Your task to perform on an android device: Empty the shopping cart on costco. Search for "macbook pro 13 inch" on costco, select the first entry, and add it to the cart. Image 0: 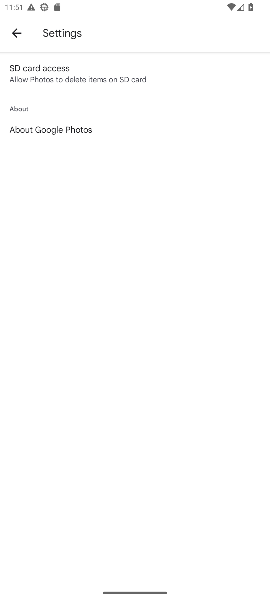
Step 0: press home button
Your task to perform on an android device: Empty the shopping cart on costco. Search for "macbook pro 13 inch" on costco, select the first entry, and add it to the cart. Image 1: 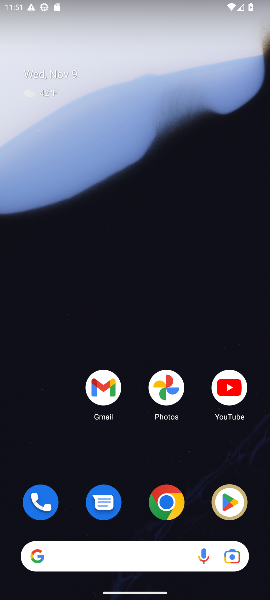
Step 1: drag from (146, 423) to (130, 45)
Your task to perform on an android device: Empty the shopping cart on costco. Search for "macbook pro 13 inch" on costco, select the first entry, and add it to the cart. Image 2: 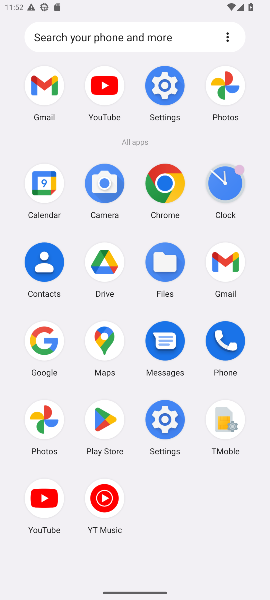
Step 2: click (161, 186)
Your task to perform on an android device: Empty the shopping cart on costco. Search for "macbook pro 13 inch" on costco, select the first entry, and add it to the cart. Image 3: 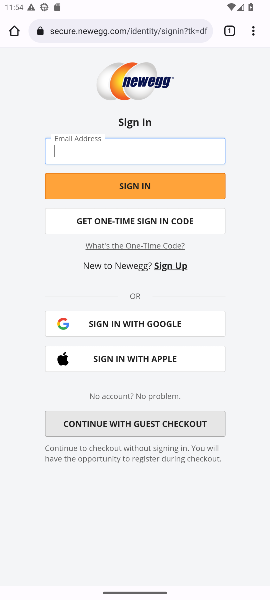
Step 3: click (149, 30)
Your task to perform on an android device: Empty the shopping cart on costco. Search for "macbook pro 13 inch" on costco, select the first entry, and add it to the cart. Image 4: 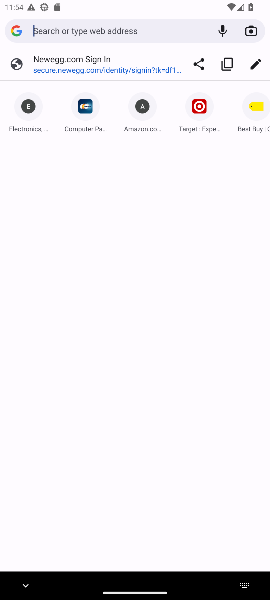
Step 4: type "costco.com"
Your task to perform on an android device: Empty the shopping cart on costco. Search for "macbook pro 13 inch" on costco, select the first entry, and add it to the cart. Image 5: 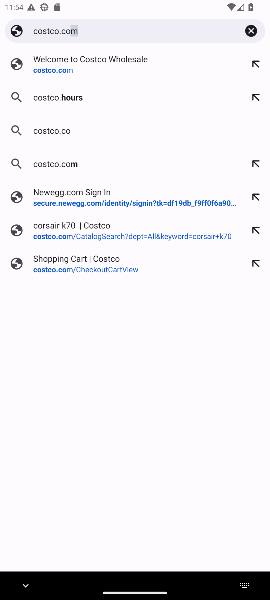
Step 5: press enter
Your task to perform on an android device: Empty the shopping cart on costco. Search for "macbook pro 13 inch" on costco, select the first entry, and add it to the cart. Image 6: 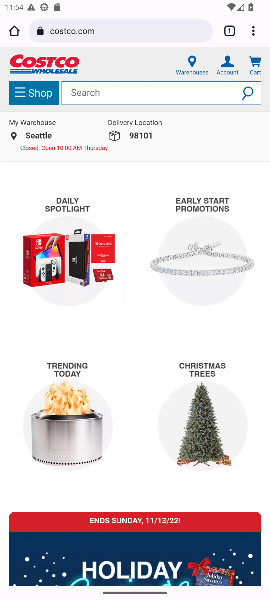
Step 6: click (249, 63)
Your task to perform on an android device: Empty the shopping cart on costco. Search for "macbook pro 13 inch" on costco, select the first entry, and add it to the cart. Image 7: 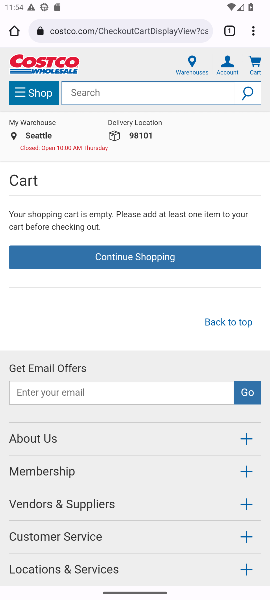
Step 7: click (151, 87)
Your task to perform on an android device: Empty the shopping cart on costco. Search for "macbook pro 13 inch" on costco, select the first entry, and add it to the cart. Image 8: 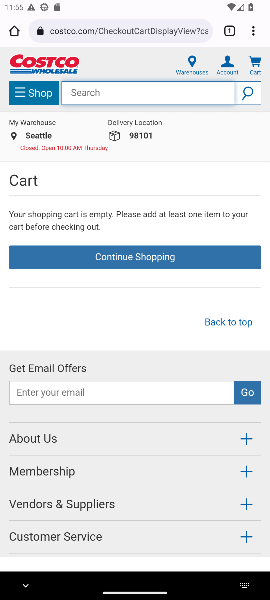
Step 8: type "macbook pro 13 inch"
Your task to perform on an android device: Empty the shopping cart on costco. Search for "macbook pro 13 inch" on costco, select the first entry, and add it to the cart. Image 9: 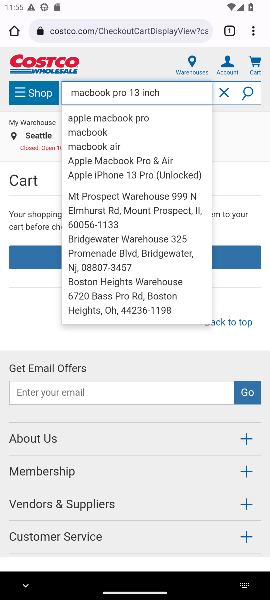
Step 9: press enter
Your task to perform on an android device: Empty the shopping cart on costco. Search for "macbook pro 13 inch" on costco, select the first entry, and add it to the cart. Image 10: 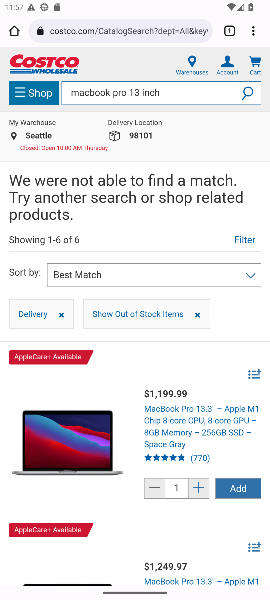
Step 10: drag from (117, 473) to (128, 233)
Your task to perform on an android device: Empty the shopping cart on costco. Search for "macbook pro 13 inch" on costco, select the first entry, and add it to the cart. Image 11: 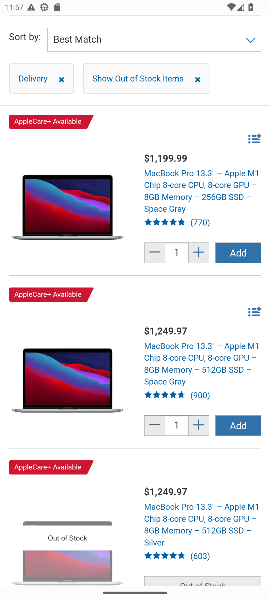
Step 11: drag from (105, 504) to (117, 183)
Your task to perform on an android device: Empty the shopping cart on costco. Search for "macbook pro 13 inch" on costco, select the first entry, and add it to the cart. Image 12: 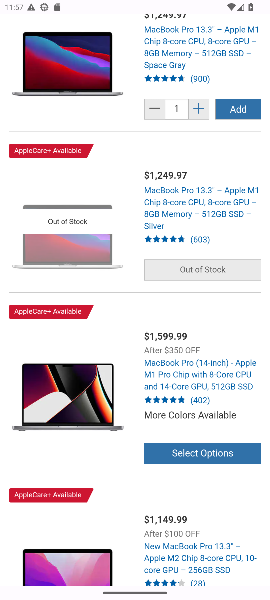
Step 12: drag from (77, 508) to (68, 226)
Your task to perform on an android device: Empty the shopping cart on costco. Search for "macbook pro 13 inch" on costco, select the first entry, and add it to the cart. Image 13: 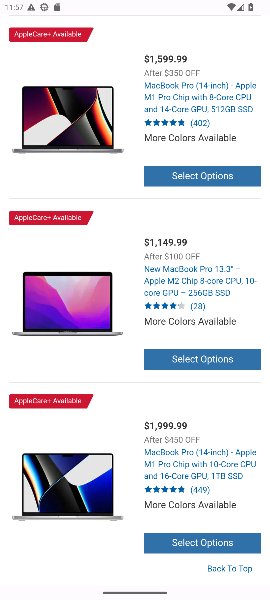
Step 13: drag from (69, 510) to (71, 185)
Your task to perform on an android device: Empty the shopping cart on costco. Search for "macbook pro 13 inch" on costco, select the first entry, and add it to the cart. Image 14: 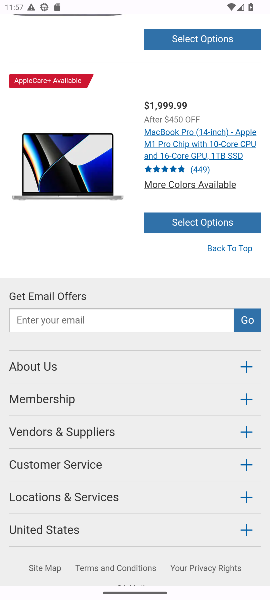
Step 14: drag from (125, 210) to (112, 563)
Your task to perform on an android device: Empty the shopping cart on costco. Search for "macbook pro 13 inch" on costco, select the first entry, and add it to the cart. Image 15: 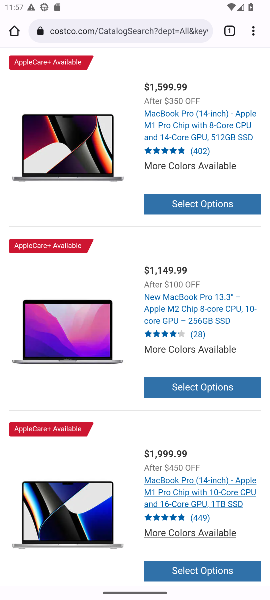
Step 15: drag from (95, 166) to (96, 544)
Your task to perform on an android device: Empty the shopping cart on costco. Search for "macbook pro 13 inch" on costco, select the first entry, and add it to the cart. Image 16: 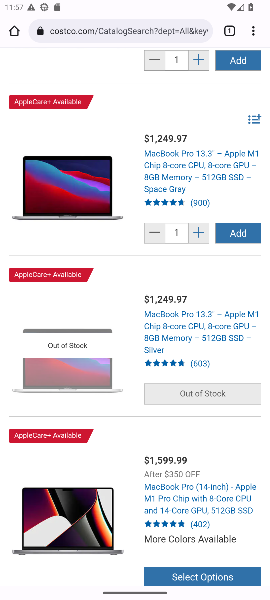
Step 16: drag from (69, 162) to (68, 486)
Your task to perform on an android device: Empty the shopping cart on costco. Search for "macbook pro 13 inch" on costco, select the first entry, and add it to the cart. Image 17: 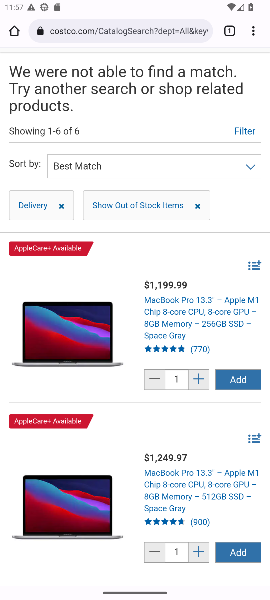
Step 17: click (238, 379)
Your task to perform on an android device: Empty the shopping cart on costco. Search for "macbook pro 13 inch" on costco, select the first entry, and add it to the cart. Image 18: 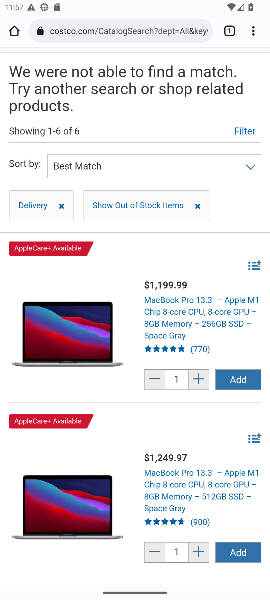
Step 18: task complete